Your task to perform on an android device: turn off notifications in google photos Image 0: 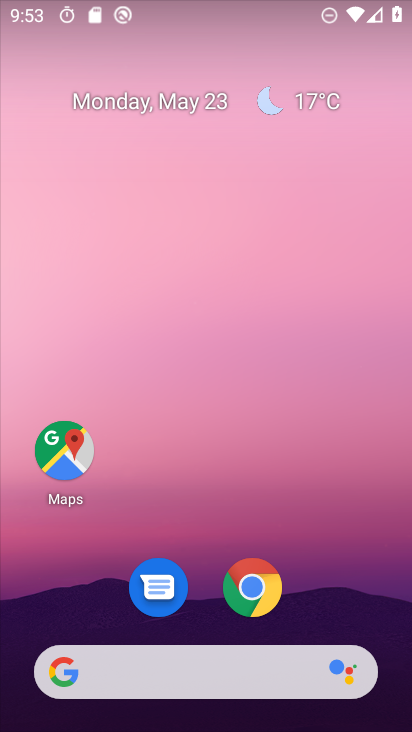
Step 0: drag from (200, 492) to (303, 52)
Your task to perform on an android device: turn off notifications in google photos Image 1: 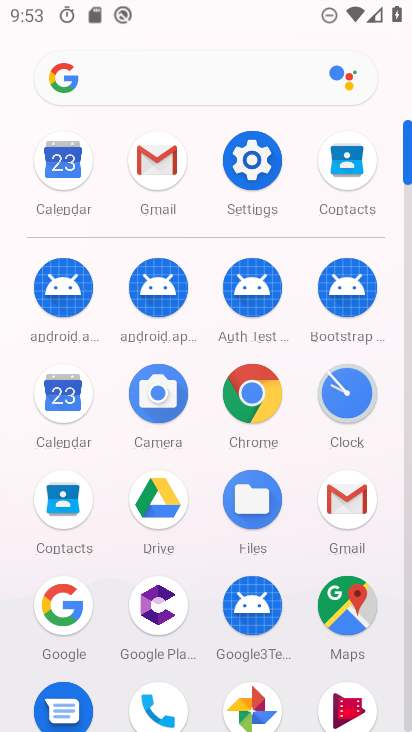
Step 1: click (252, 701)
Your task to perform on an android device: turn off notifications in google photos Image 2: 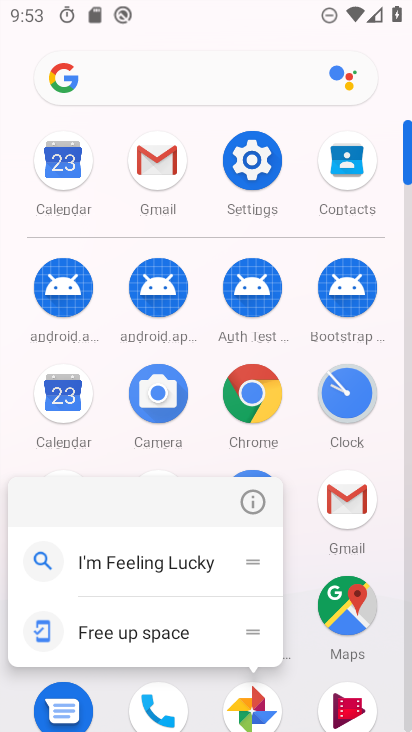
Step 2: click (257, 490)
Your task to perform on an android device: turn off notifications in google photos Image 3: 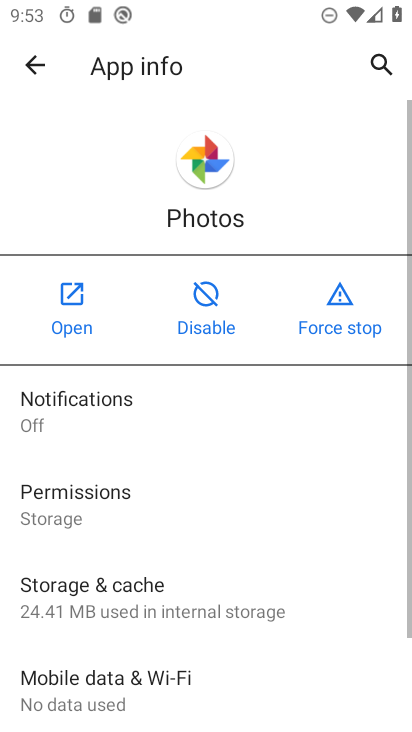
Step 3: click (120, 398)
Your task to perform on an android device: turn off notifications in google photos Image 4: 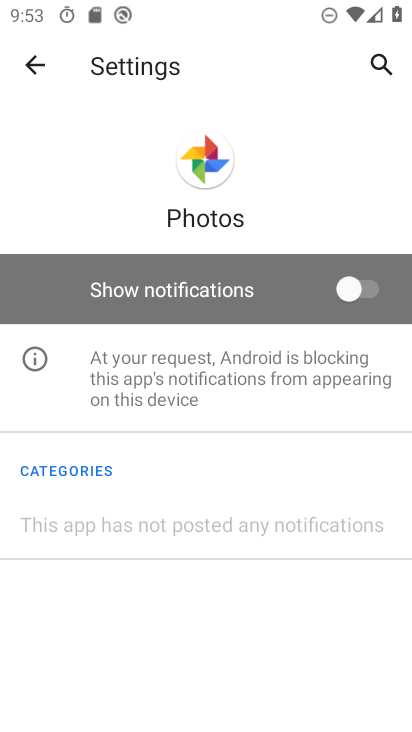
Step 4: task complete